Your task to perform on an android device: turn pop-ups off in chrome Image 0: 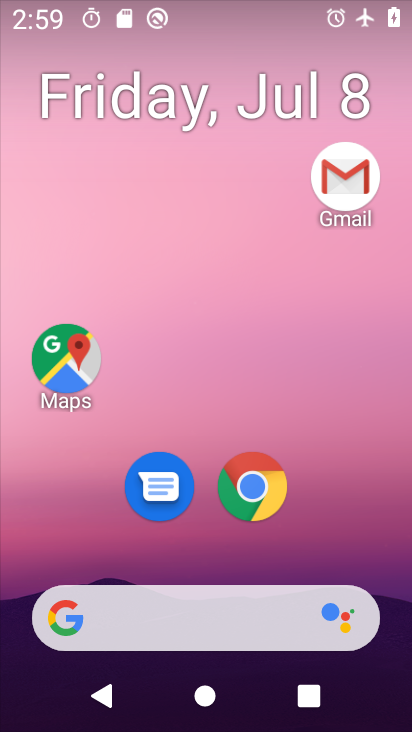
Step 0: drag from (357, 529) to (391, 189)
Your task to perform on an android device: turn pop-ups off in chrome Image 1: 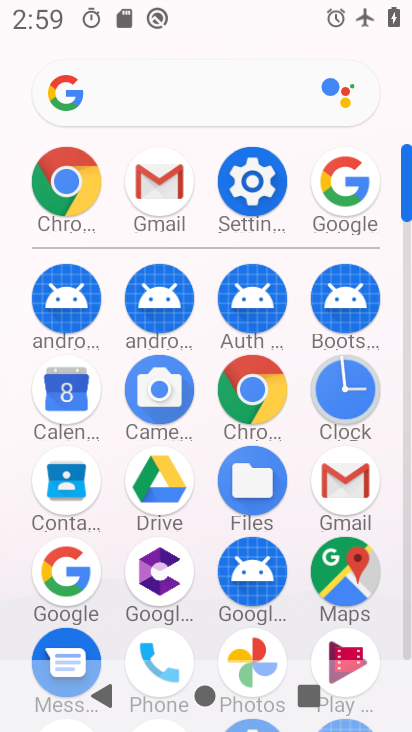
Step 1: click (269, 385)
Your task to perform on an android device: turn pop-ups off in chrome Image 2: 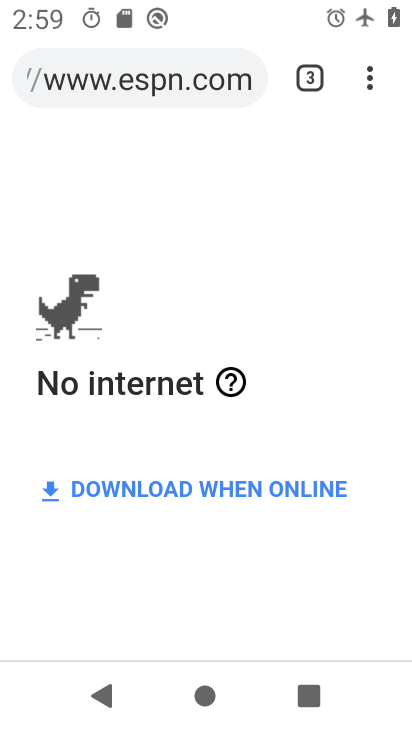
Step 2: click (368, 79)
Your task to perform on an android device: turn pop-ups off in chrome Image 3: 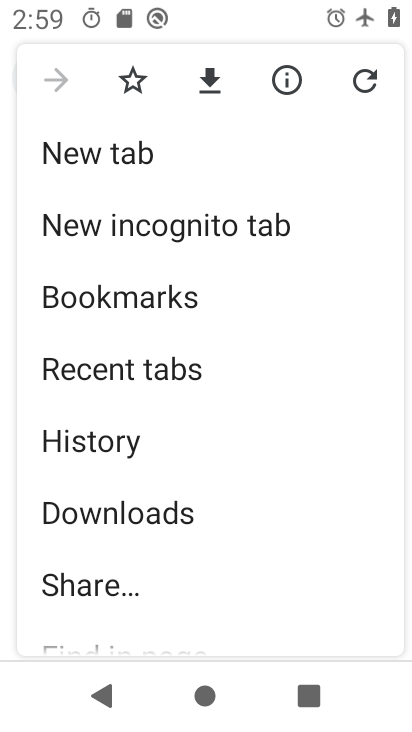
Step 3: drag from (313, 388) to (345, 265)
Your task to perform on an android device: turn pop-ups off in chrome Image 4: 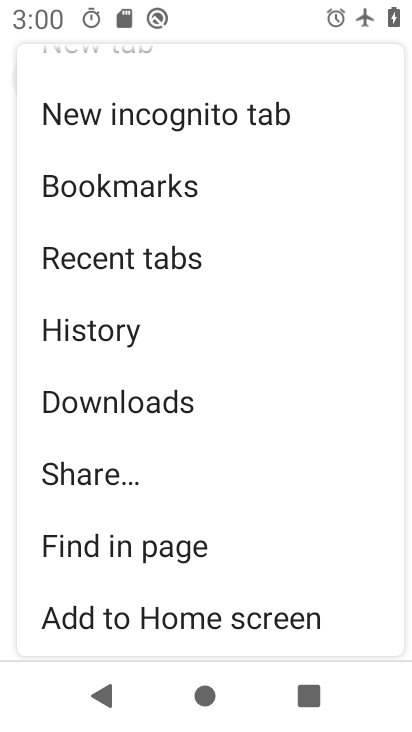
Step 4: drag from (321, 439) to (324, 278)
Your task to perform on an android device: turn pop-ups off in chrome Image 5: 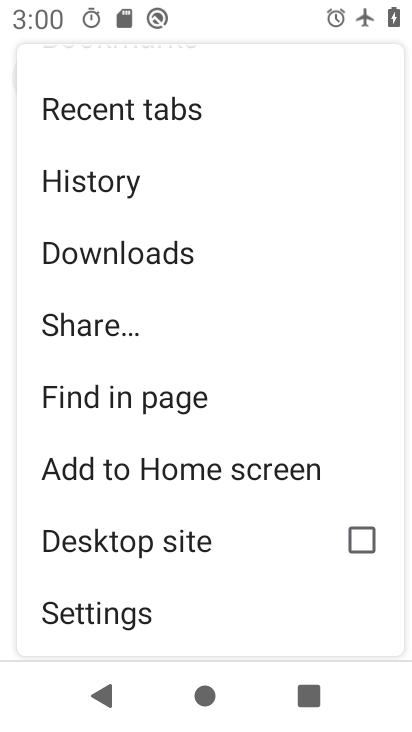
Step 5: drag from (274, 546) to (287, 351)
Your task to perform on an android device: turn pop-ups off in chrome Image 6: 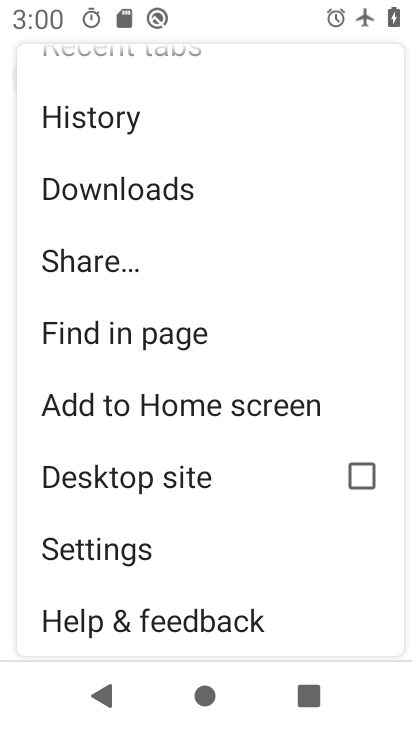
Step 6: click (188, 550)
Your task to perform on an android device: turn pop-ups off in chrome Image 7: 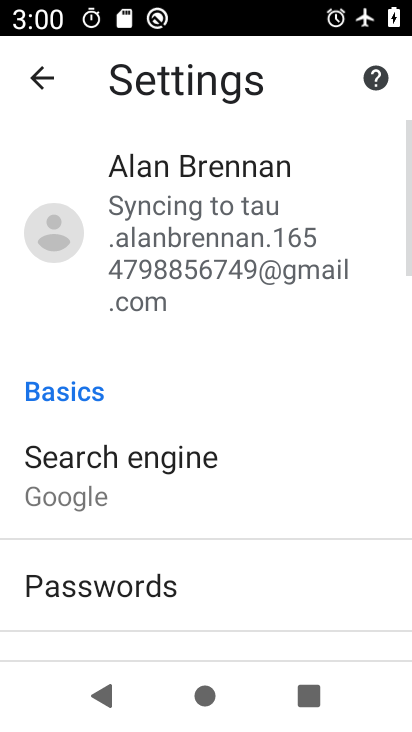
Step 7: drag from (314, 524) to (322, 396)
Your task to perform on an android device: turn pop-ups off in chrome Image 8: 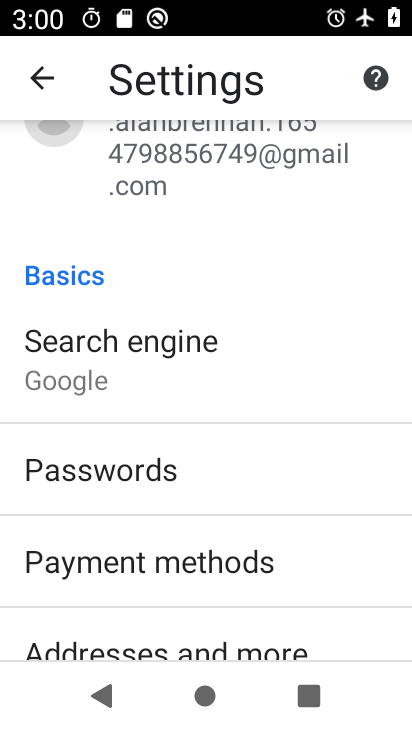
Step 8: drag from (318, 531) to (323, 403)
Your task to perform on an android device: turn pop-ups off in chrome Image 9: 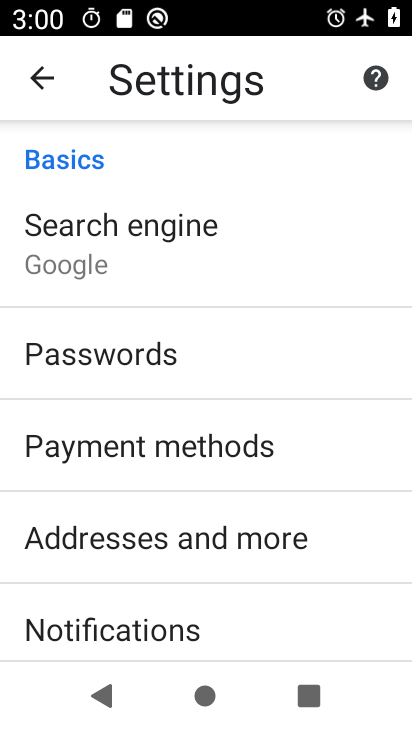
Step 9: drag from (343, 552) to (361, 362)
Your task to perform on an android device: turn pop-ups off in chrome Image 10: 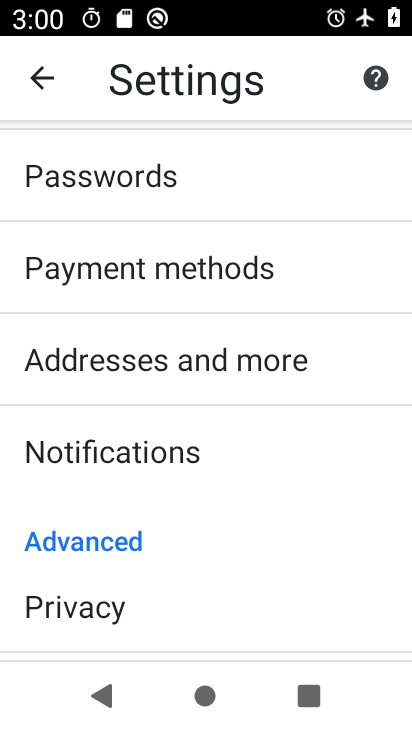
Step 10: drag from (326, 549) to (330, 374)
Your task to perform on an android device: turn pop-ups off in chrome Image 11: 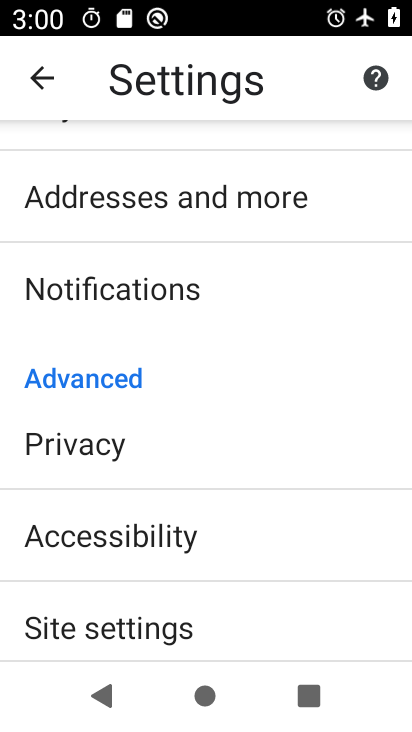
Step 11: drag from (296, 570) to (311, 437)
Your task to perform on an android device: turn pop-ups off in chrome Image 12: 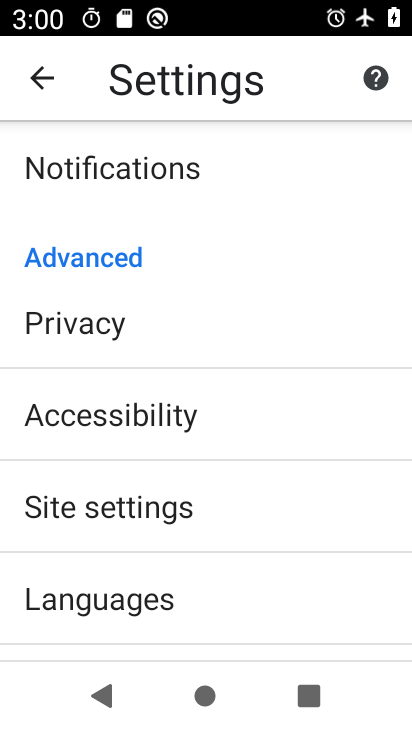
Step 12: drag from (299, 575) to (305, 429)
Your task to perform on an android device: turn pop-ups off in chrome Image 13: 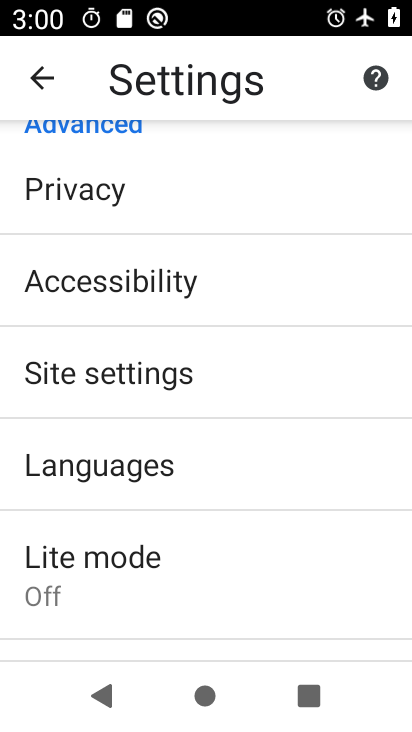
Step 13: drag from (307, 599) to (325, 472)
Your task to perform on an android device: turn pop-ups off in chrome Image 14: 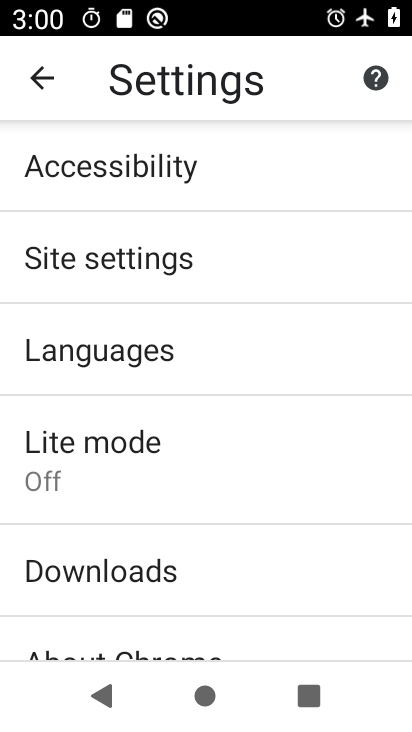
Step 14: click (234, 282)
Your task to perform on an android device: turn pop-ups off in chrome Image 15: 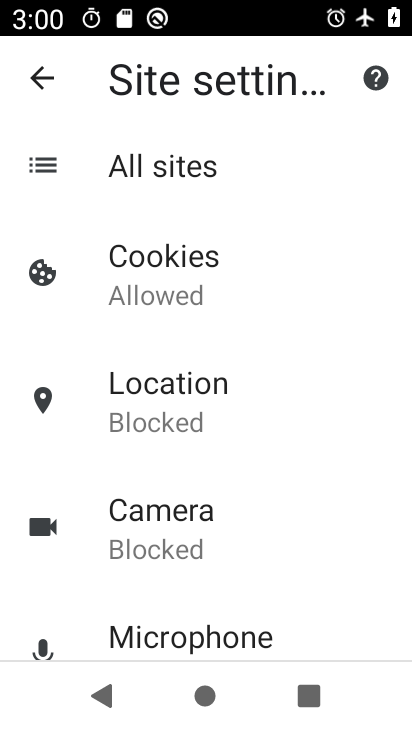
Step 15: drag from (351, 494) to (345, 361)
Your task to perform on an android device: turn pop-ups off in chrome Image 16: 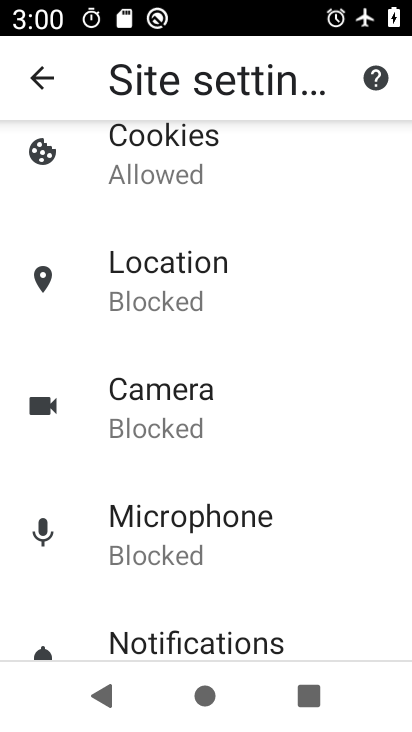
Step 16: drag from (351, 508) to (351, 355)
Your task to perform on an android device: turn pop-ups off in chrome Image 17: 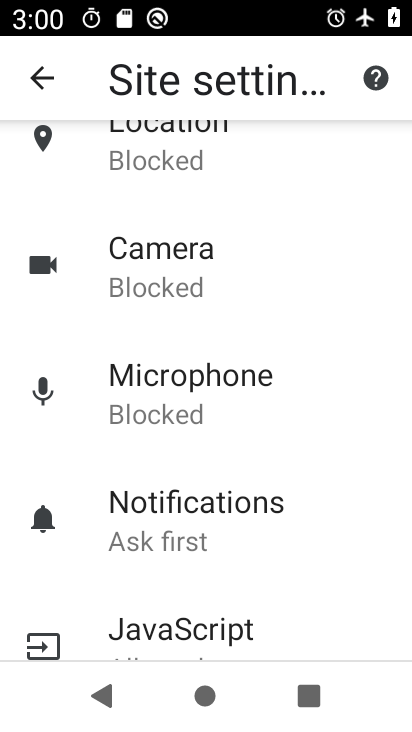
Step 17: drag from (336, 525) to (338, 385)
Your task to perform on an android device: turn pop-ups off in chrome Image 18: 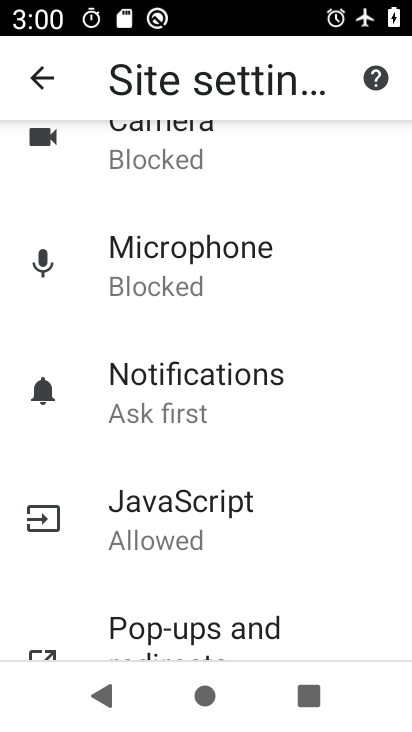
Step 18: drag from (334, 536) to (347, 354)
Your task to perform on an android device: turn pop-ups off in chrome Image 19: 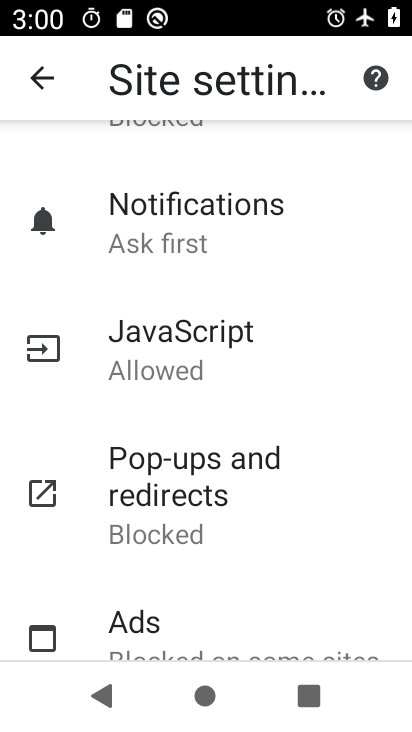
Step 19: click (250, 491)
Your task to perform on an android device: turn pop-ups off in chrome Image 20: 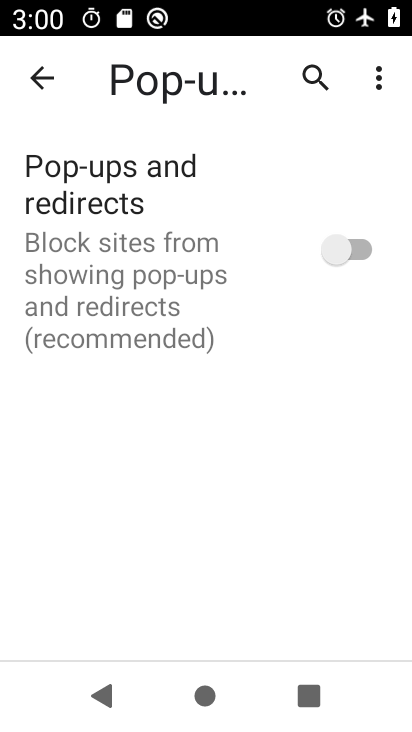
Step 20: task complete